Your task to perform on an android device: see sites visited before in the chrome app Image 0: 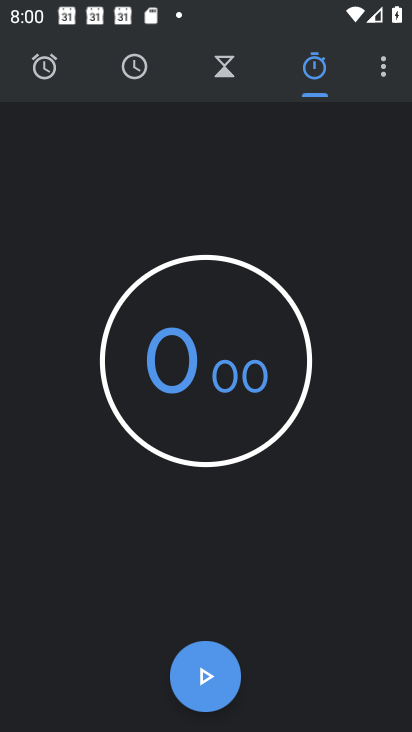
Step 0: press home button
Your task to perform on an android device: see sites visited before in the chrome app Image 1: 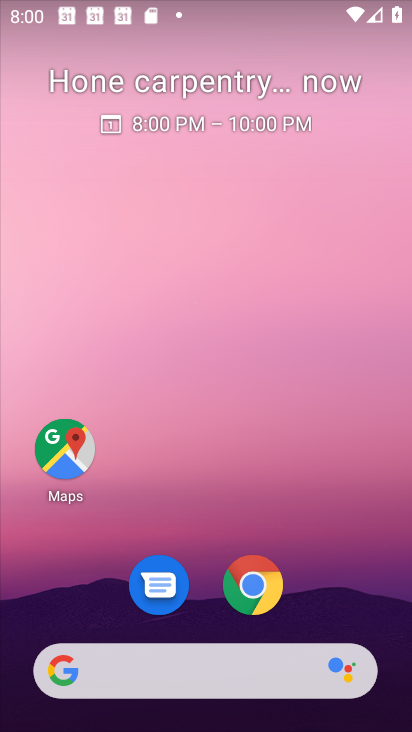
Step 1: click (253, 584)
Your task to perform on an android device: see sites visited before in the chrome app Image 2: 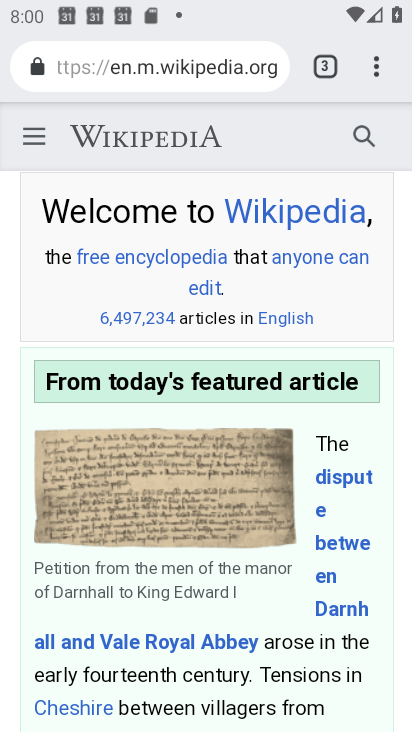
Step 2: click (379, 67)
Your task to perform on an android device: see sites visited before in the chrome app Image 3: 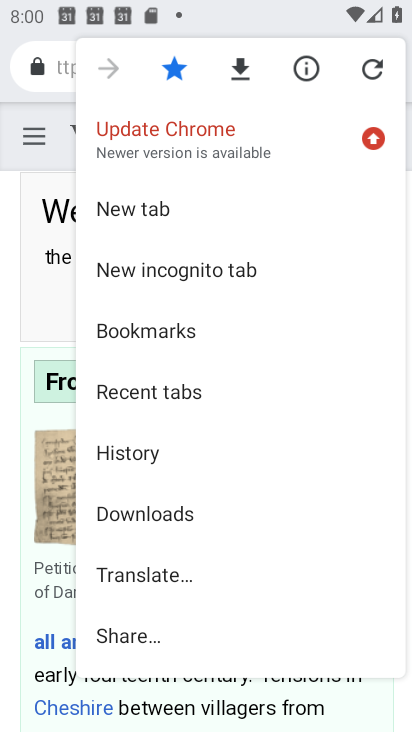
Step 3: click (175, 381)
Your task to perform on an android device: see sites visited before in the chrome app Image 4: 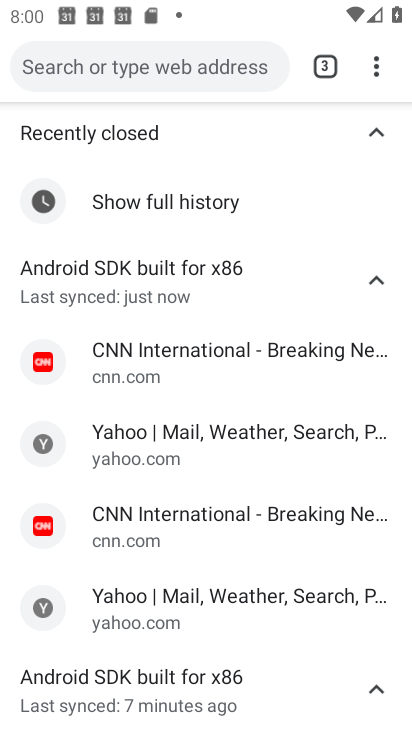
Step 4: task complete